Your task to perform on an android device: Open Youtube and go to the subscriptions tab Image 0: 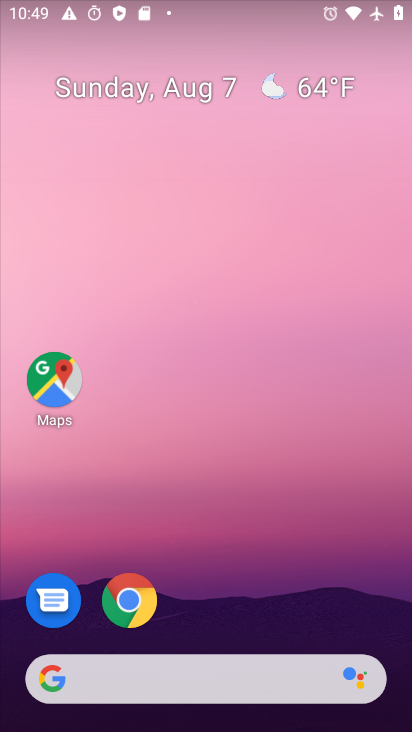
Step 0: drag from (268, 635) to (301, 4)
Your task to perform on an android device: Open Youtube and go to the subscriptions tab Image 1: 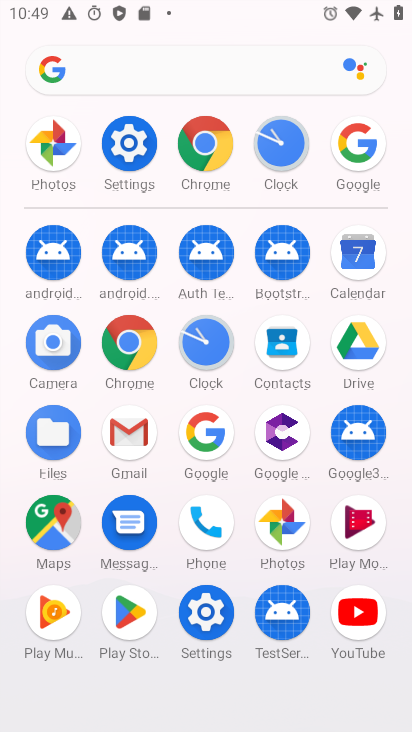
Step 1: click (362, 628)
Your task to perform on an android device: Open Youtube and go to the subscriptions tab Image 2: 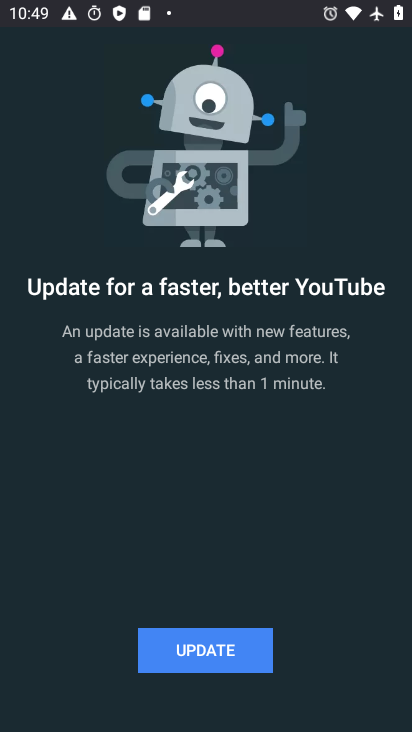
Step 2: press home button
Your task to perform on an android device: Open Youtube and go to the subscriptions tab Image 3: 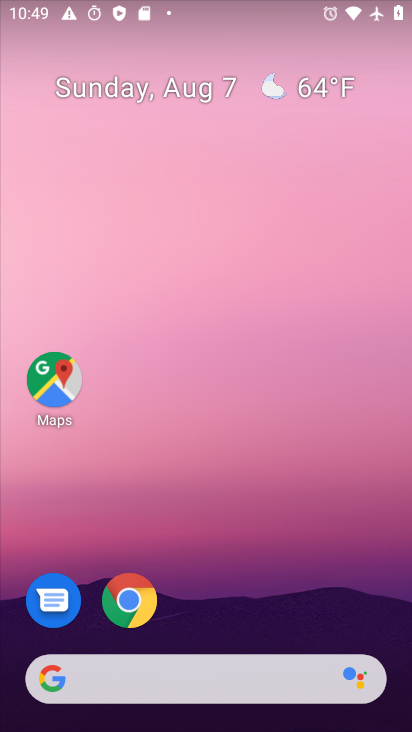
Step 3: drag from (209, 638) to (226, 284)
Your task to perform on an android device: Open Youtube and go to the subscriptions tab Image 4: 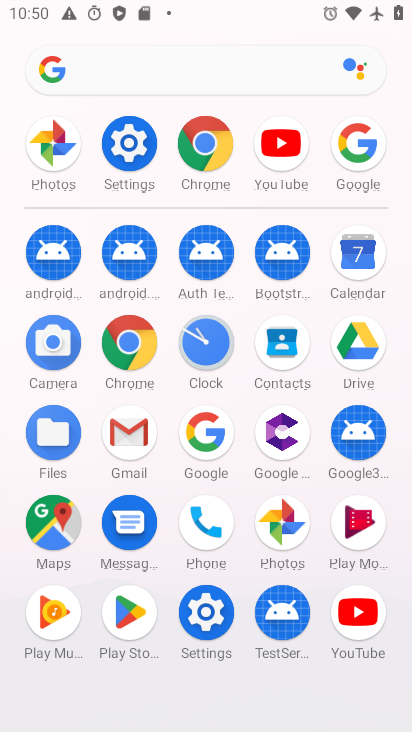
Step 4: click (360, 610)
Your task to perform on an android device: Open Youtube and go to the subscriptions tab Image 5: 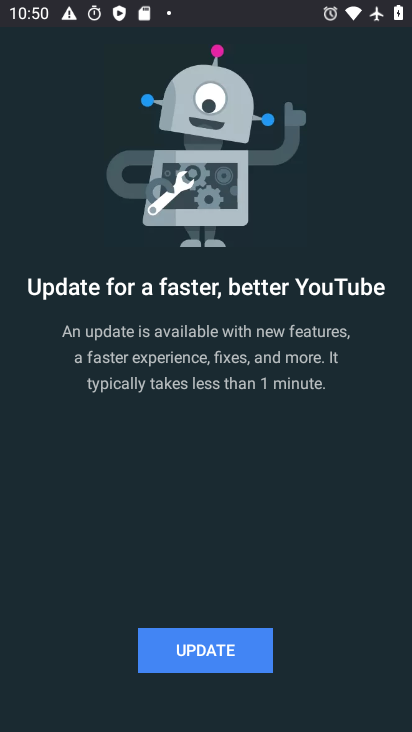
Step 5: click (230, 649)
Your task to perform on an android device: Open Youtube and go to the subscriptions tab Image 6: 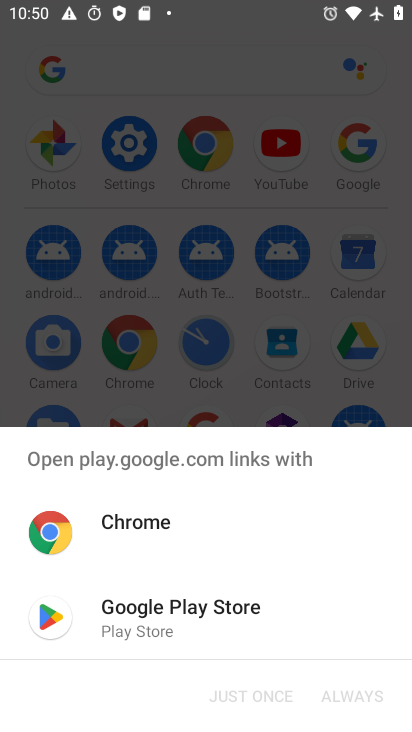
Step 6: click (160, 599)
Your task to perform on an android device: Open Youtube and go to the subscriptions tab Image 7: 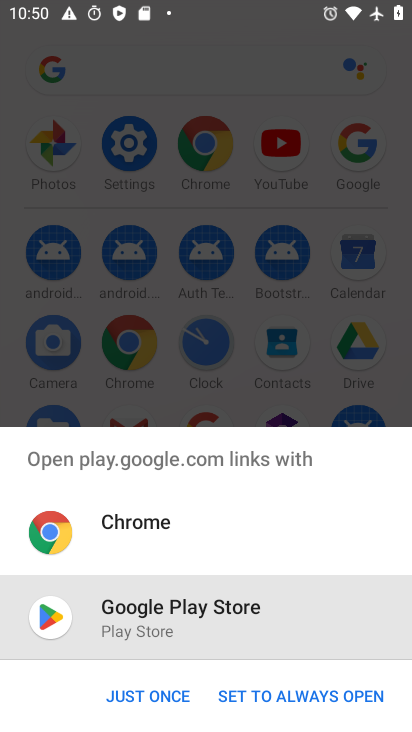
Step 7: click (139, 696)
Your task to perform on an android device: Open Youtube and go to the subscriptions tab Image 8: 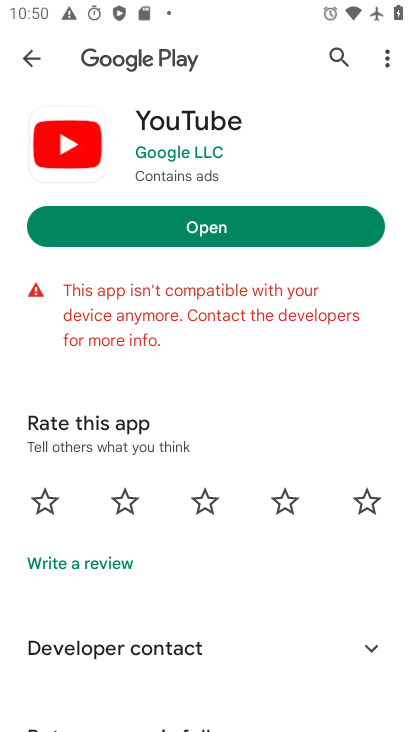
Step 8: task complete